Your task to perform on an android device: Open Google Chrome Image 0: 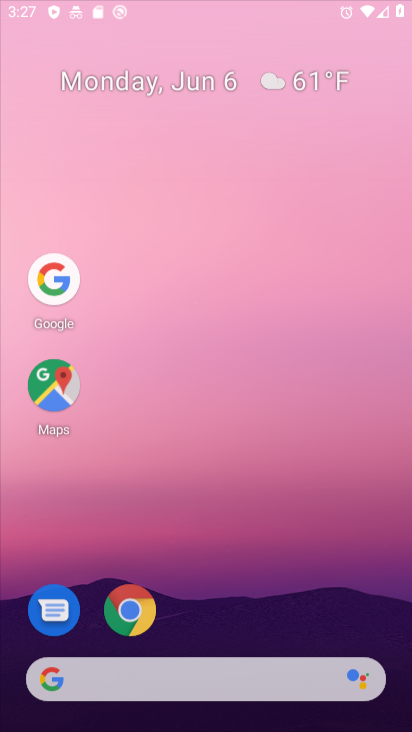
Step 0: press home button
Your task to perform on an android device: Open Google Chrome Image 1: 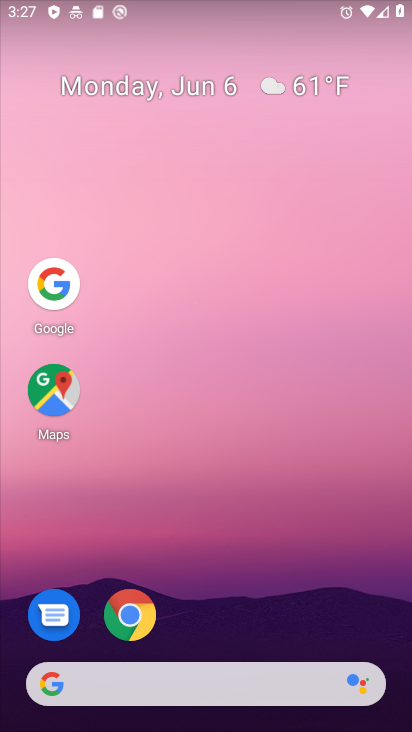
Step 1: click (129, 619)
Your task to perform on an android device: Open Google Chrome Image 2: 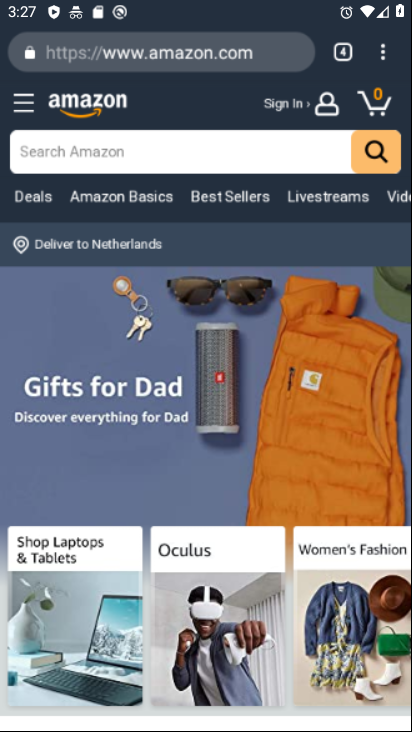
Step 2: task complete